Your task to perform on an android device: change text size in settings app Image 0: 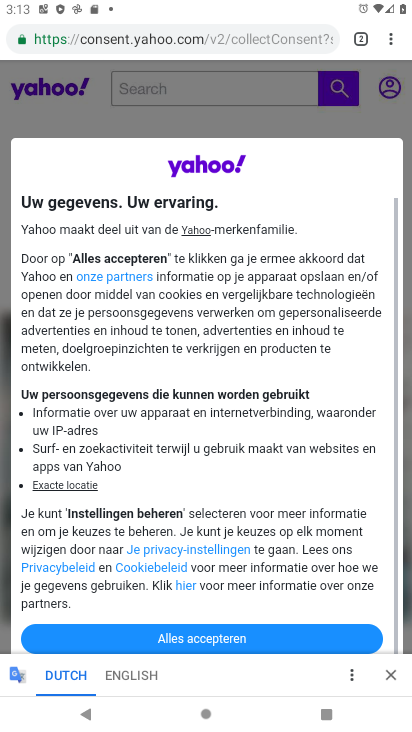
Step 0: press home button
Your task to perform on an android device: change text size in settings app Image 1: 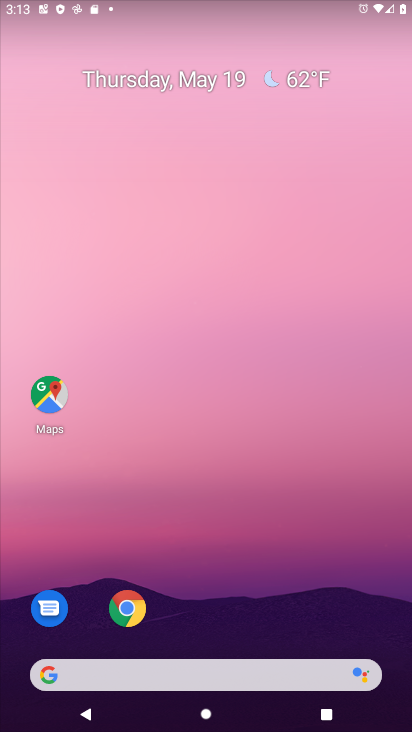
Step 1: drag from (233, 618) to (235, 152)
Your task to perform on an android device: change text size in settings app Image 2: 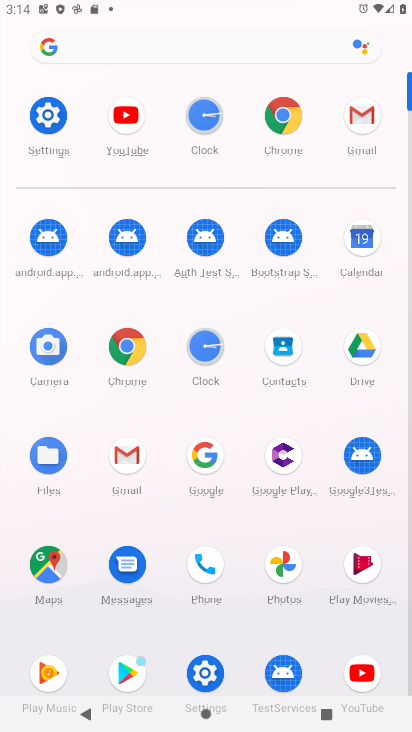
Step 2: click (47, 136)
Your task to perform on an android device: change text size in settings app Image 3: 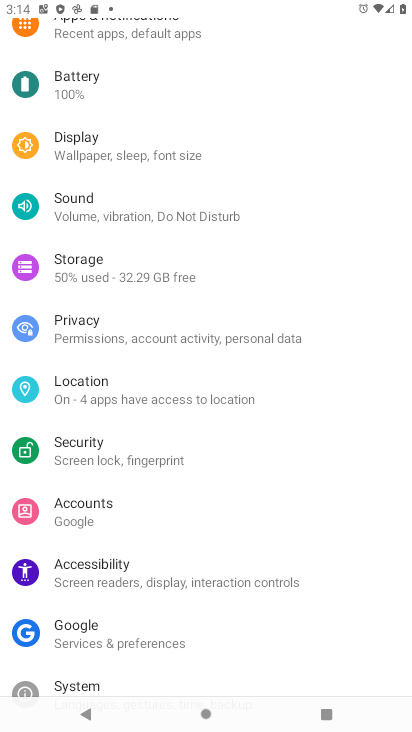
Step 3: click (110, 134)
Your task to perform on an android device: change text size in settings app Image 4: 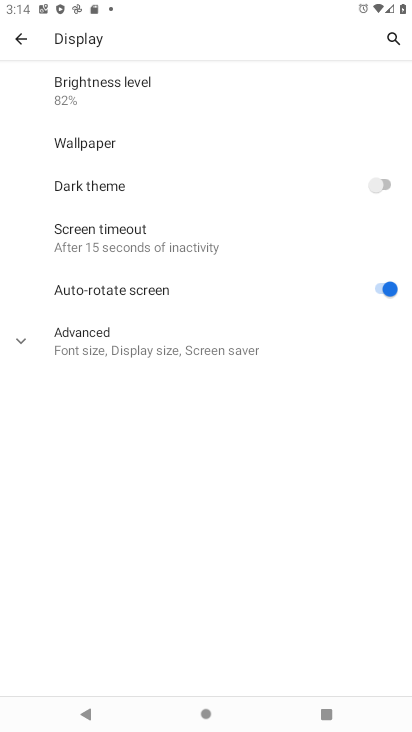
Step 4: click (255, 350)
Your task to perform on an android device: change text size in settings app Image 5: 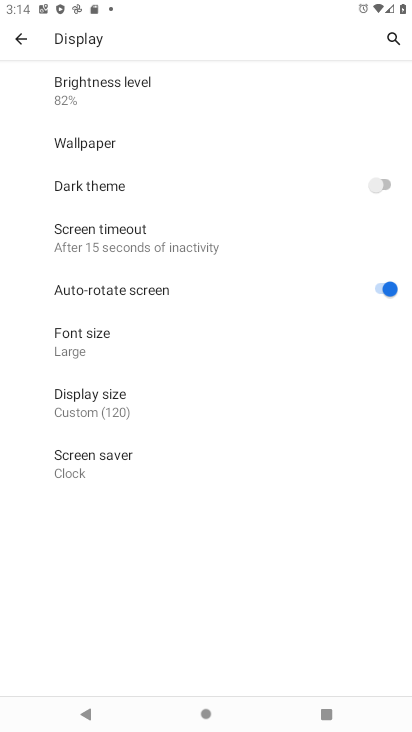
Step 5: click (134, 354)
Your task to perform on an android device: change text size in settings app Image 6: 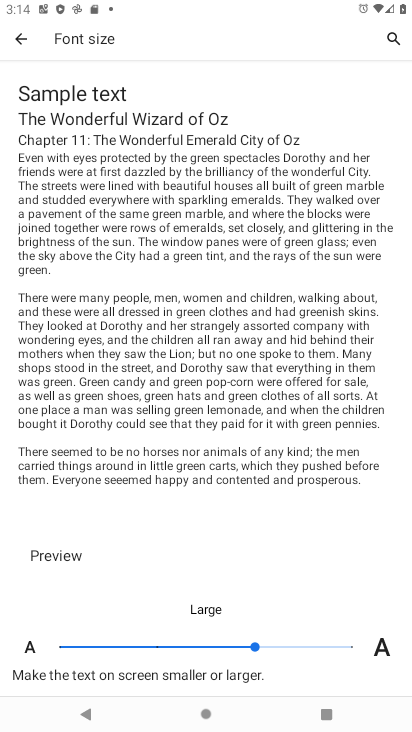
Step 6: click (160, 647)
Your task to perform on an android device: change text size in settings app Image 7: 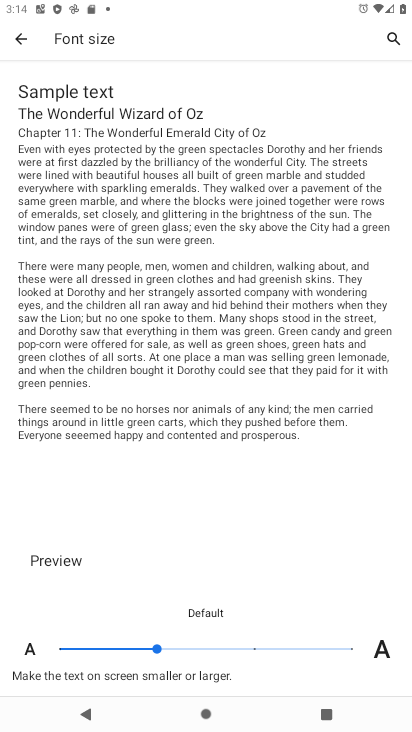
Step 7: task complete